Your task to perform on an android device: change text size in settings app Image 0: 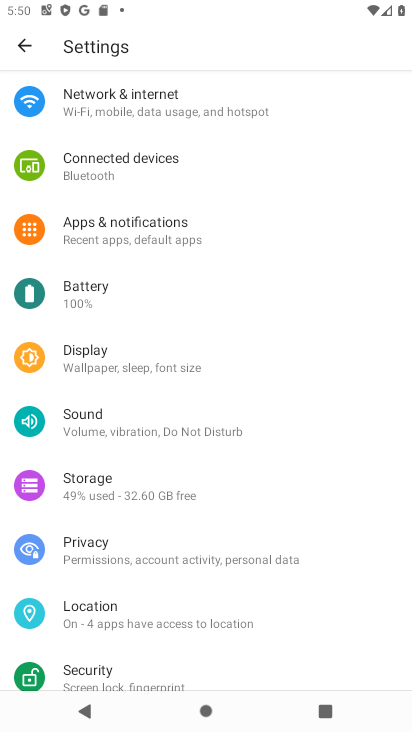
Step 0: drag from (314, 519) to (300, 329)
Your task to perform on an android device: change text size in settings app Image 1: 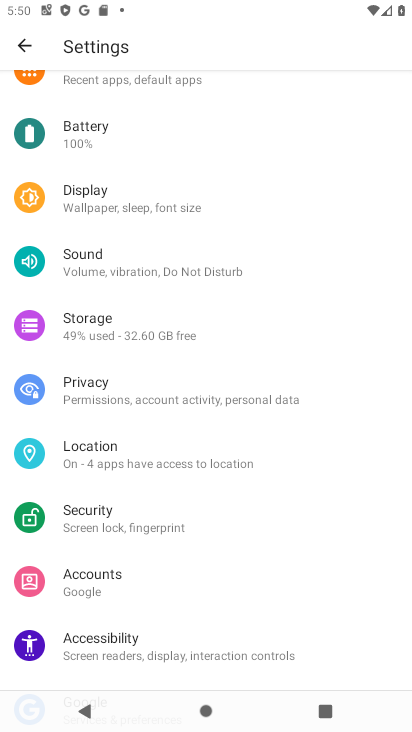
Step 1: drag from (300, 418) to (300, 547)
Your task to perform on an android device: change text size in settings app Image 2: 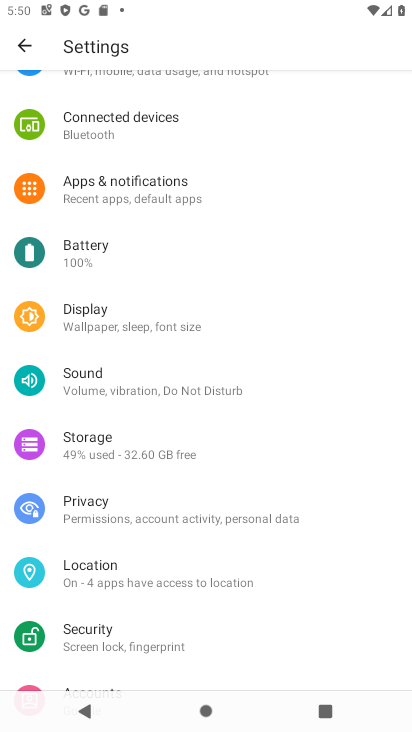
Step 2: click (129, 319)
Your task to perform on an android device: change text size in settings app Image 3: 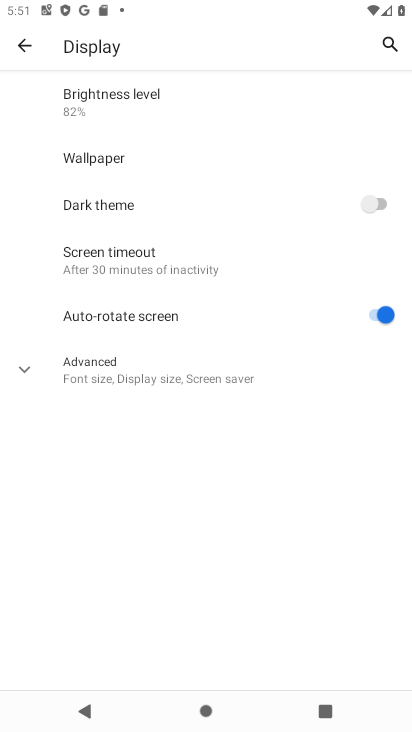
Step 3: click (127, 370)
Your task to perform on an android device: change text size in settings app Image 4: 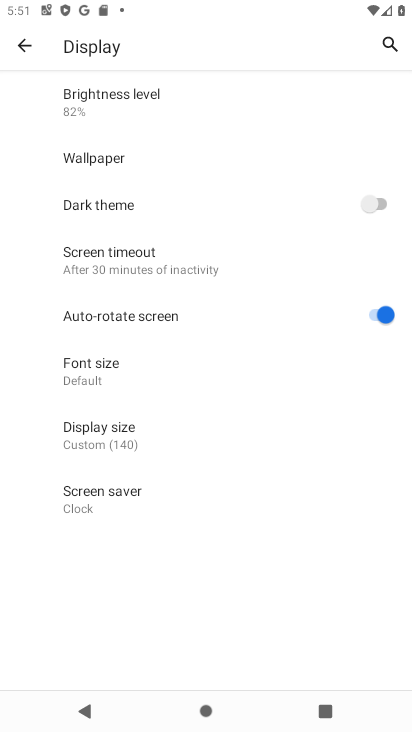
Step 4: click (123, 374)
Your task to perform on an android device: change text size in settings app Image 5: 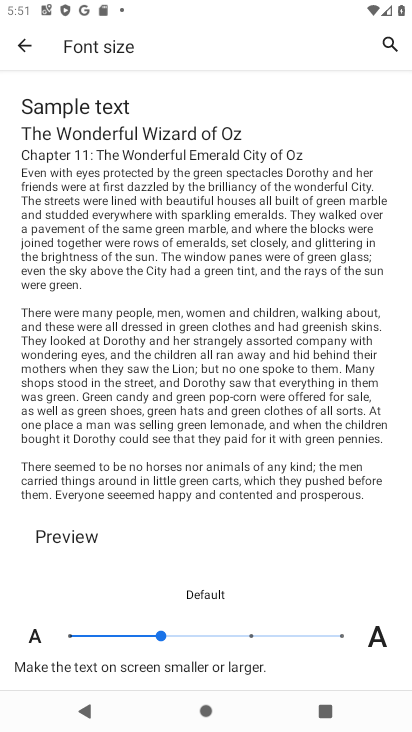
Step 5: click (187, 634)
Your task to perform on an android device: change text size in settings app Image 6: 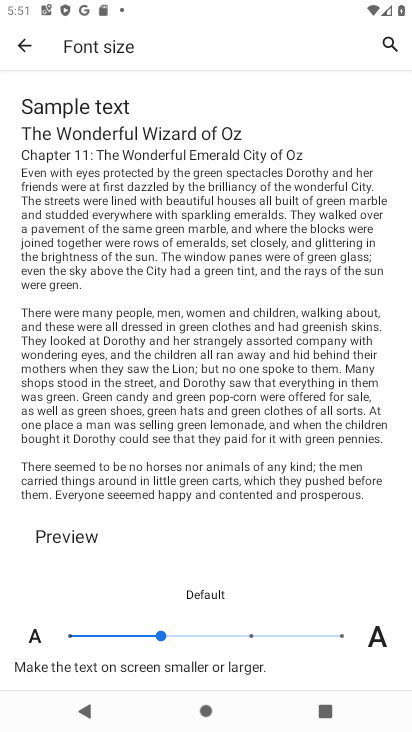
Step 6: click (181, 636)
Your task to perform on an android device: change text size in settings app Image 7: 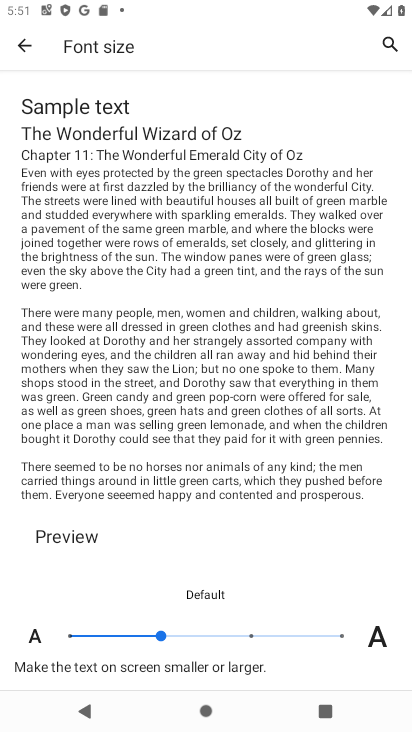
Step 7: task complete